Your task to perform on an android device: Go to ESPN.com Image 0: 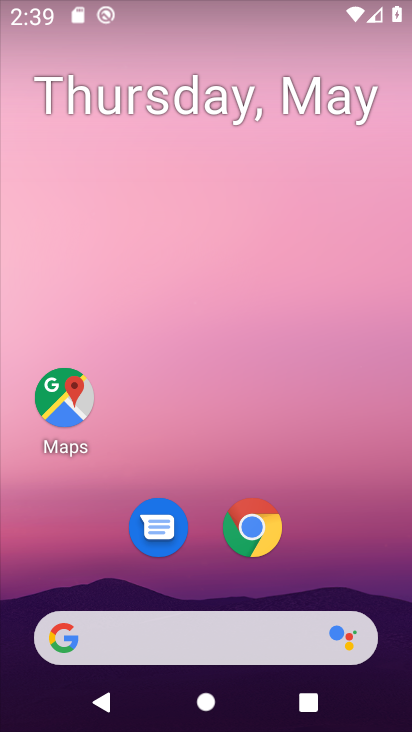
Step 0: click (260, 541)
Your task to perform on an android device: Go to ESPN.com Image 1: 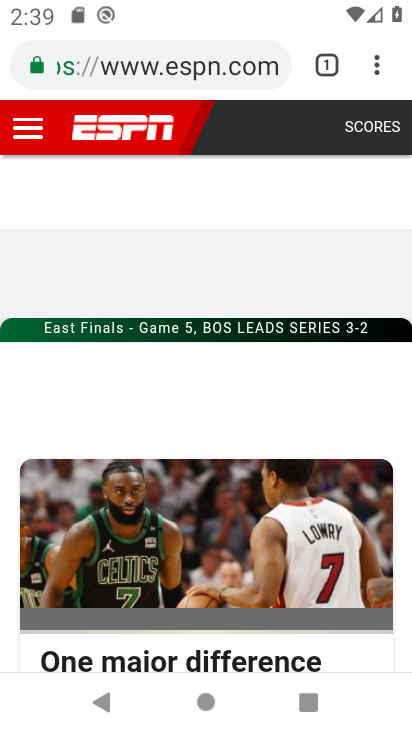
Step 1: task complete